Your task to perform on an android device: turn off javascript in the chrome app Image 0: 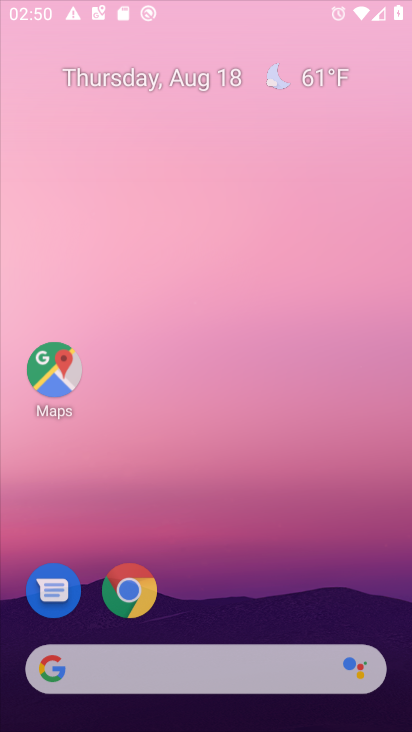
Step 0: press home button
Your task to perform on an android device: turn off javascript in the chrome app Image 1: 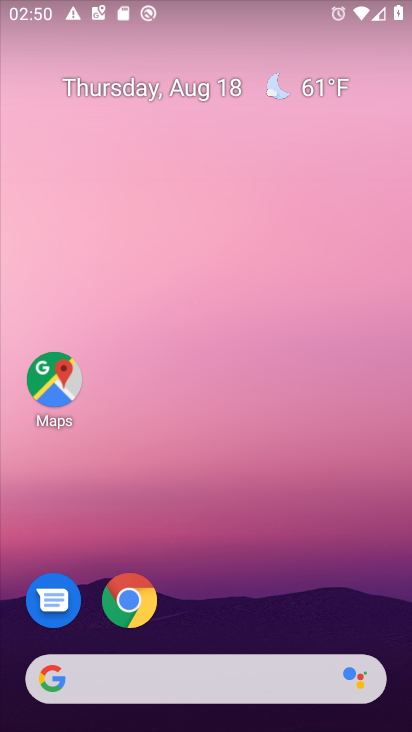
Step 1: click (113, 598)
Your task to perform on an android device: turn off javascript in the chrome app Image 2: 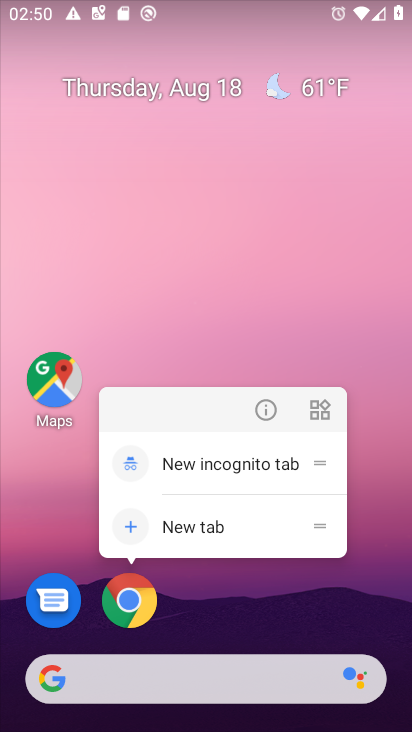
Step 2: click (132, 611)
Your task to perform on an android device: turn off javascript in the chrome app Image 3: 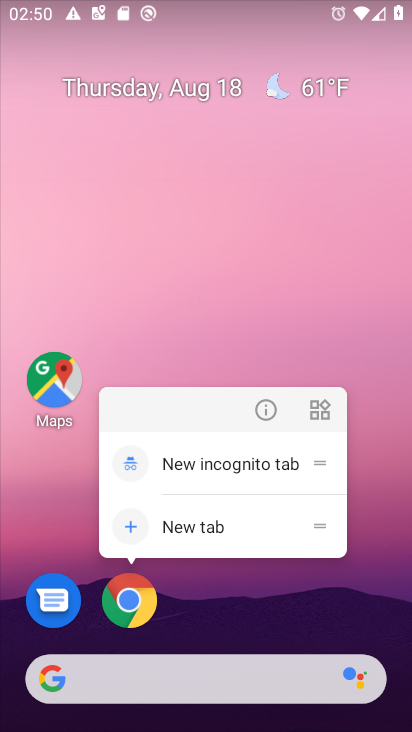
Step 3: click (133, 599)
Your task to perform on an android device: turn off javascript in the chrome app Image 4: 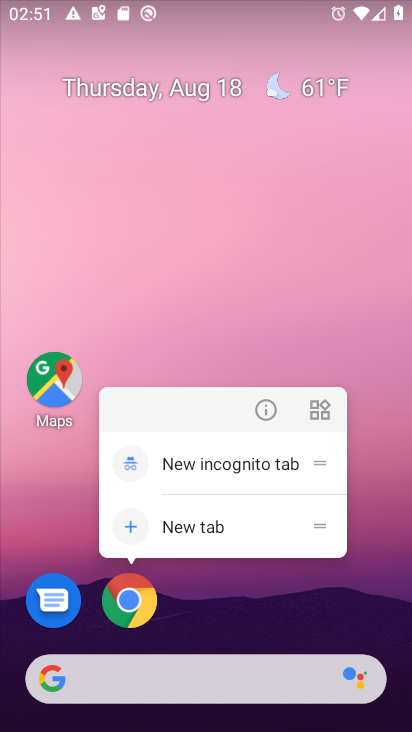
Step 4: click (133, 599)
Your task to perform on an android device: turn off javascript in the chrome app Image 5: 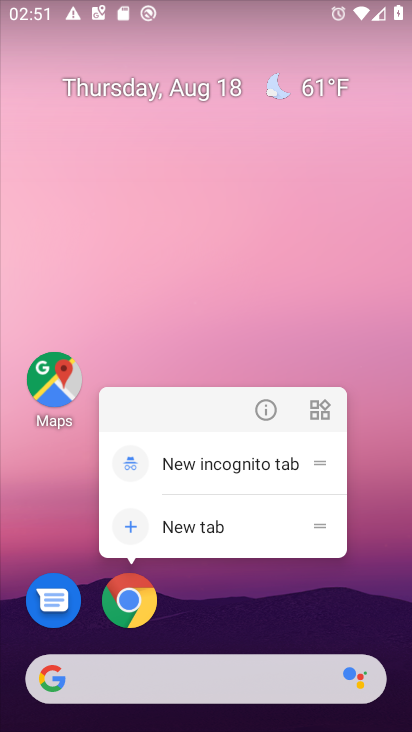
Step 5: click (119, 617)
Your task to perform on an android device: turn off javascript in the chrome app Image 6: 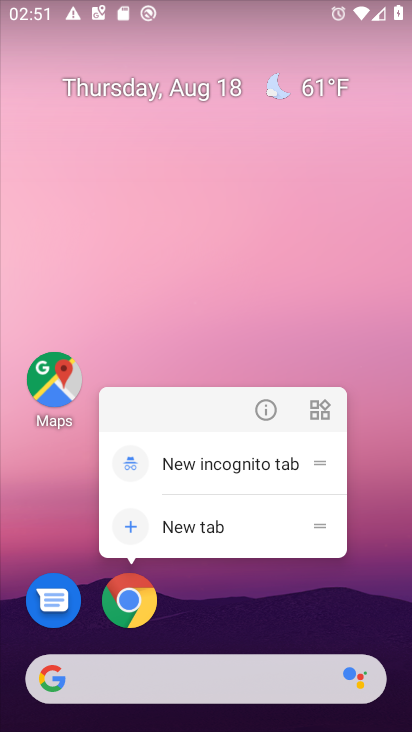
Step 6: click (134, 601)
Your task to perform on an android device: turn off javascript in the chrome app Image 7: 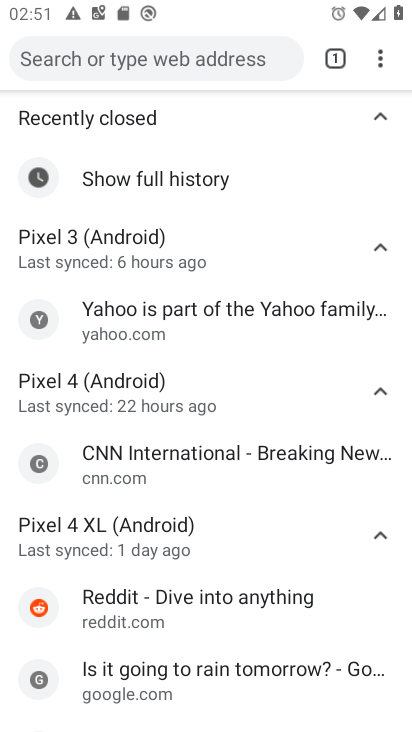
Step 7: drag from (376, 62) to (174, 491)
Your task to perform on an android device: turn off javascript in the chrome app Image 8: 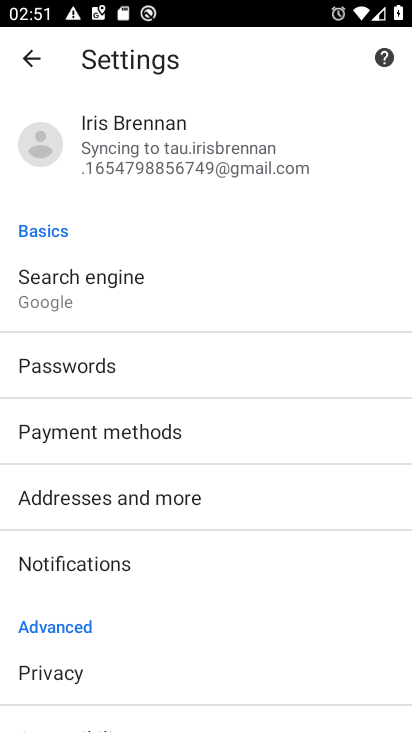
Step 8: drag from (187, 628) to (197, 164)
Your task to perform on an android device: turn off javascript in the chrome app Image 9: 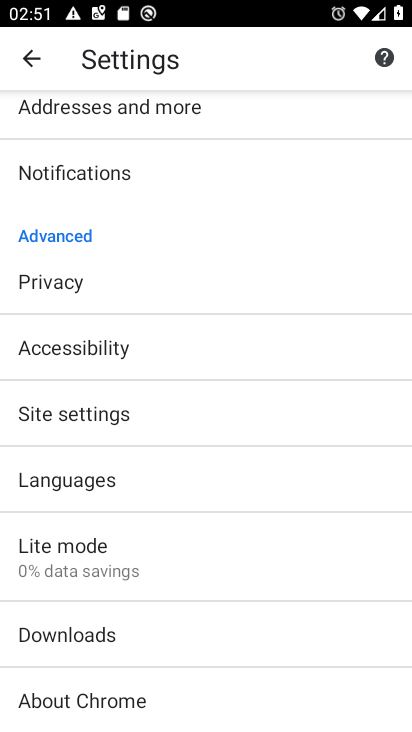
Step 9: click (65, 413)
Your task to perform on an android device: turn off javascript in the chrome app Image 10: 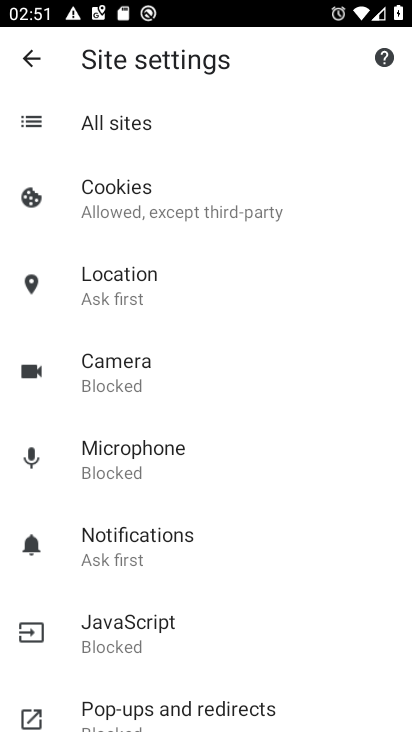
Step 10: click (105, 641)
Your task to perform on an android device: turn off javascript in the chrome app Image 11: 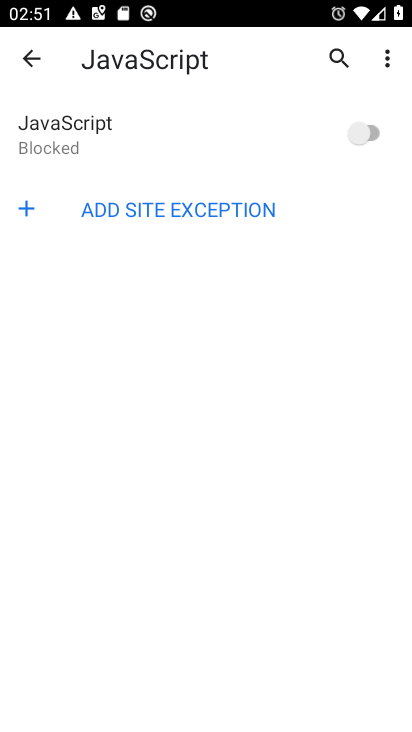
Step 11: task complete